Your task to perform on an android device: turn on airplane mode Image 0: 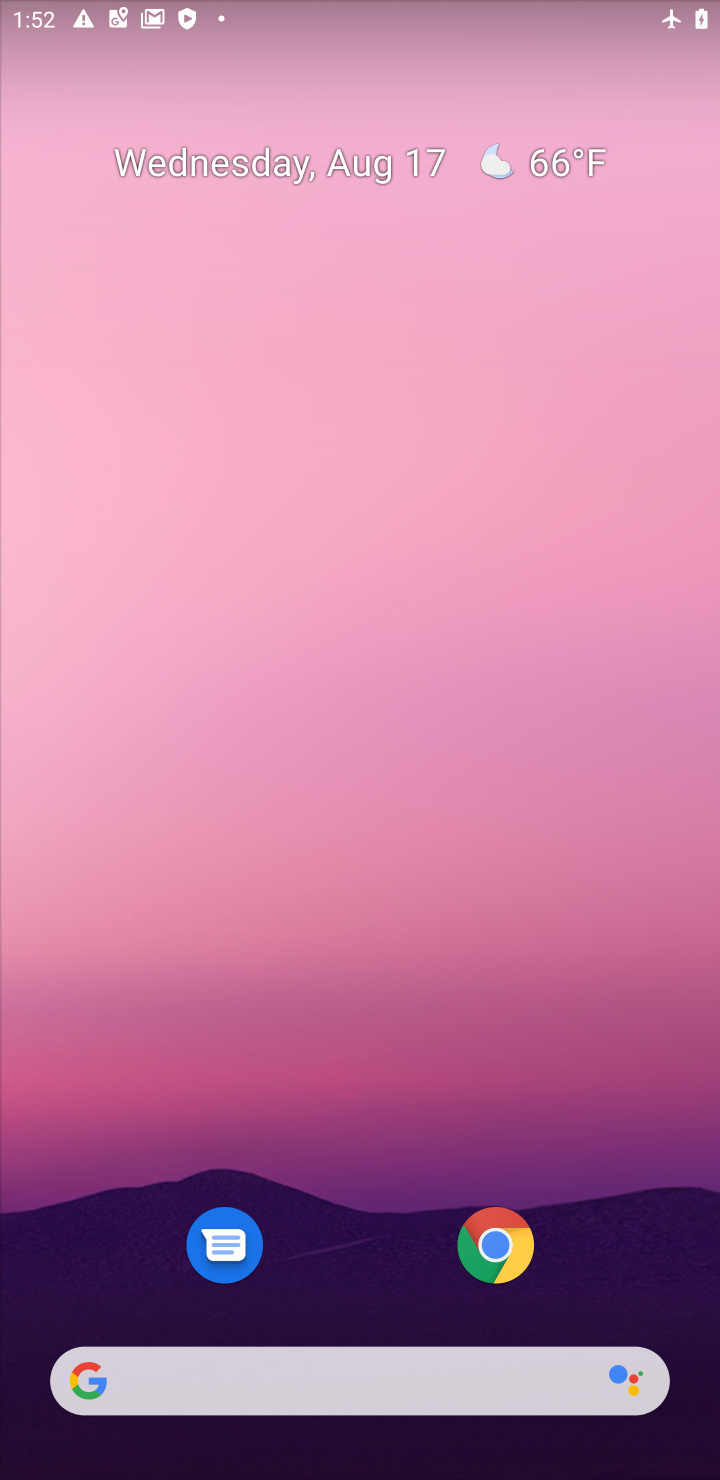
Step 0: drag from (354, 1092) to (322, 186)
Your task to perform on an android device: turn on airplane mode Image 1: 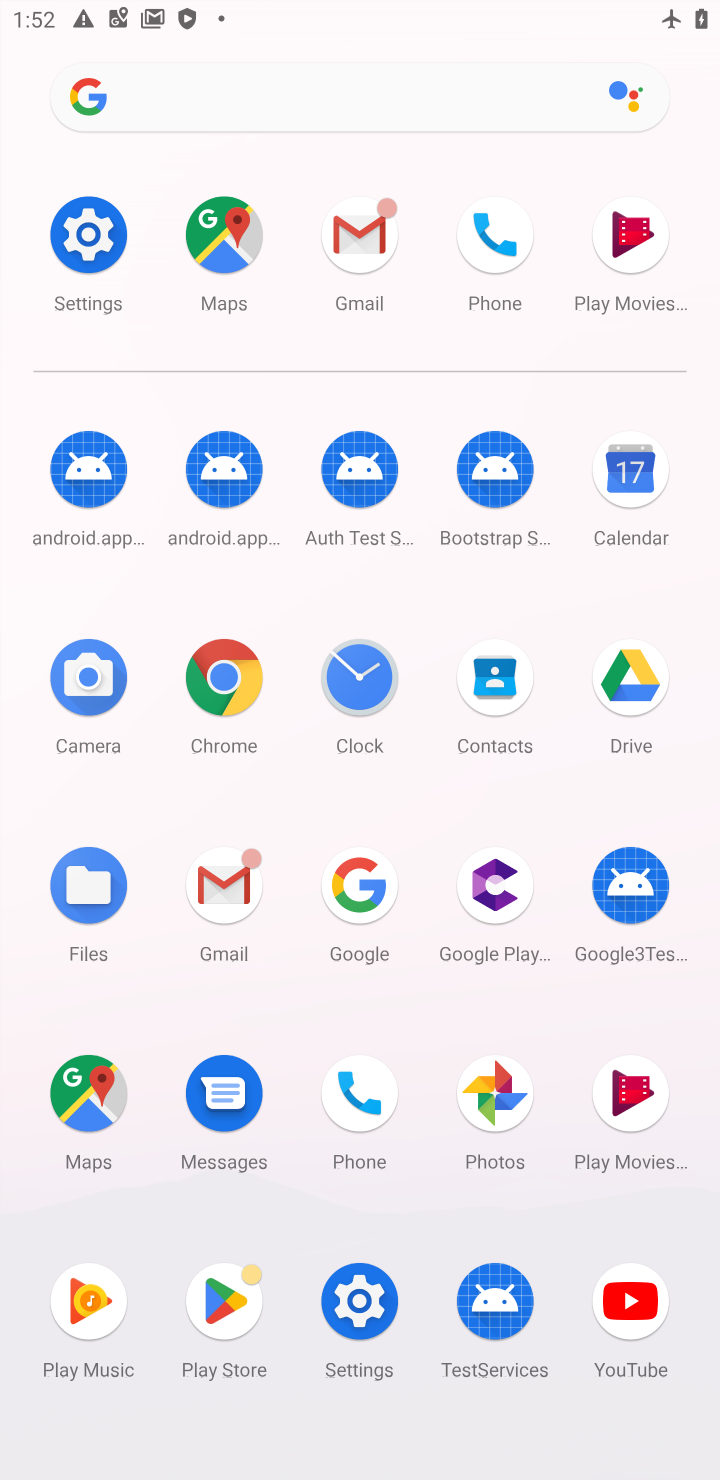
Step 1: click (365, 1309)
Your task to perform on an android device: turn on airplane mode Image 2: 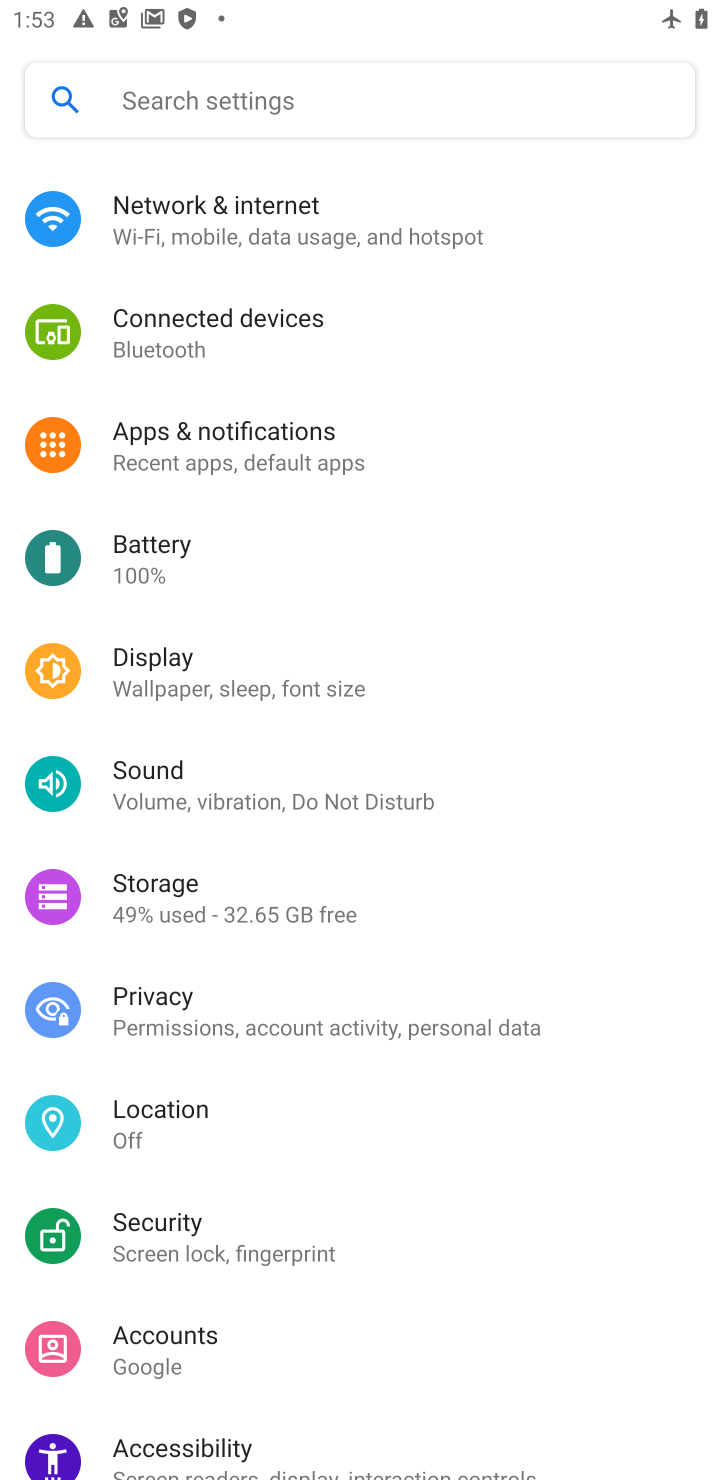
Step 2: click (177, 230)
Your task to perform on an android device: turn on airplane mode Image 3: 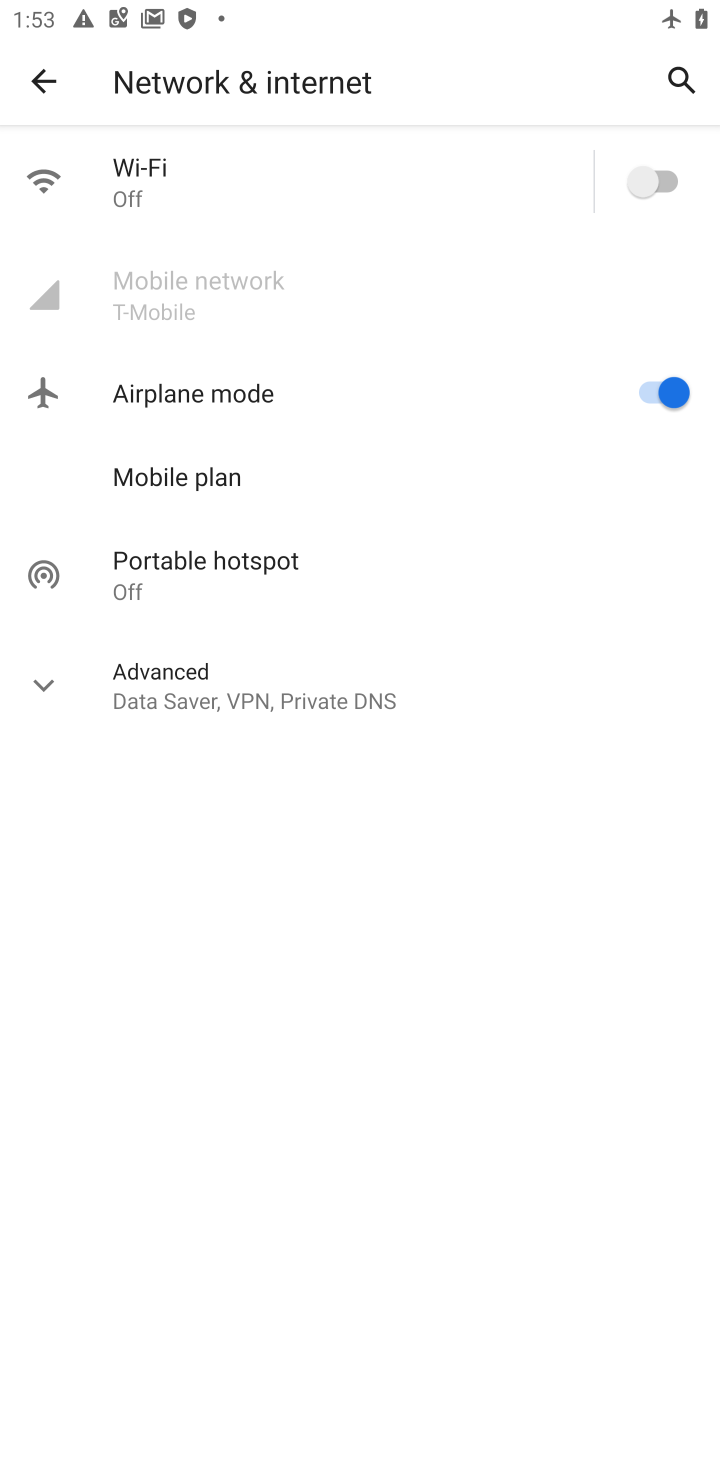
Step 3: task complete